Your task to perform on an android device: manage bookmarks in the chrome app Image 0: 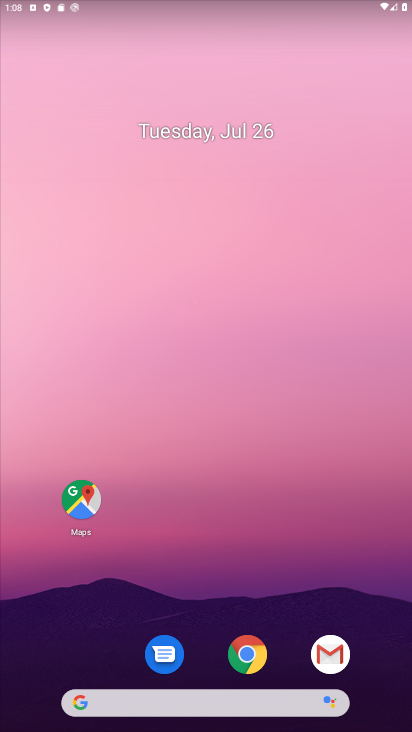
Step 0: click (233, 658)
Your task to perform on an android device: manage bookmarks in the chrome app Image 1: 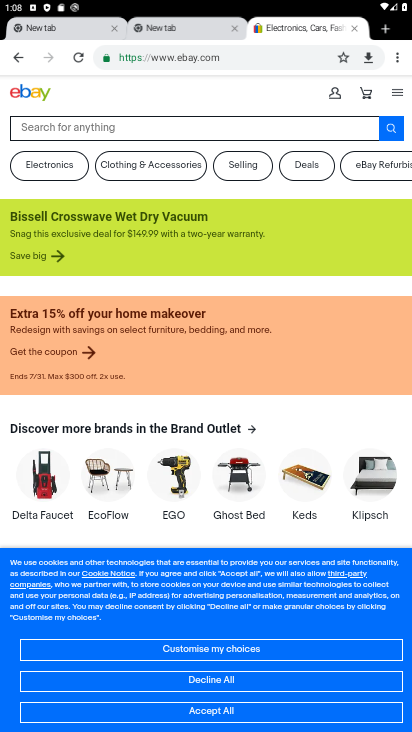
Step 1: click (391, 66)
Your task to perform on an android device: manage bookmarks in the chrome app Image 2: 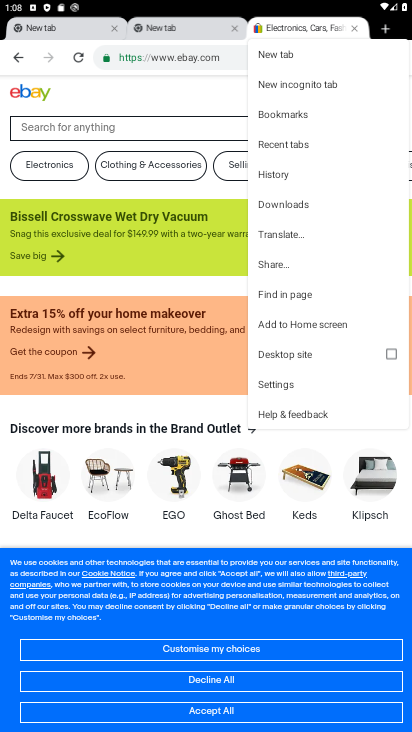
Step 2: click (303, 115)
Your task to perform on an android device: manage bookmarks in the chrome app Image 3: 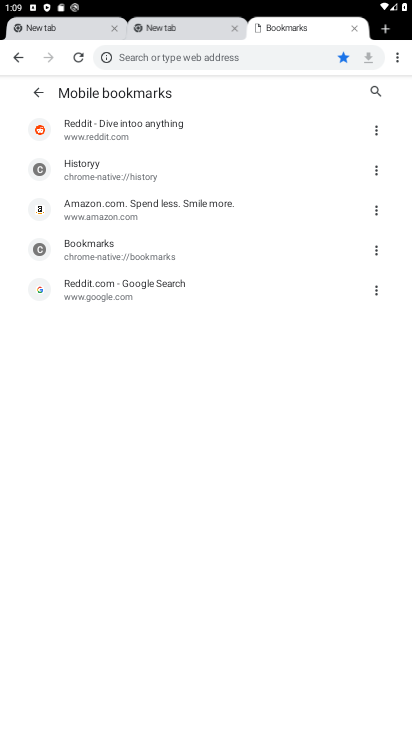
Step 3: task complete